Your task to perform on an android device: Open battery settings Image 0: 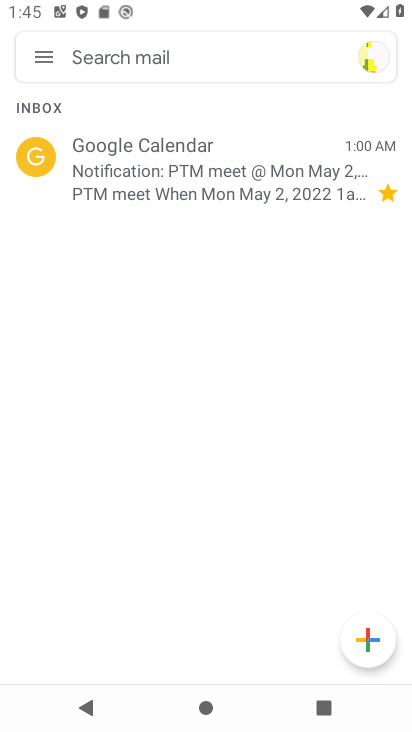
Step 0: press home button
Your task to perform on an android device: Open battery settings Image 1: 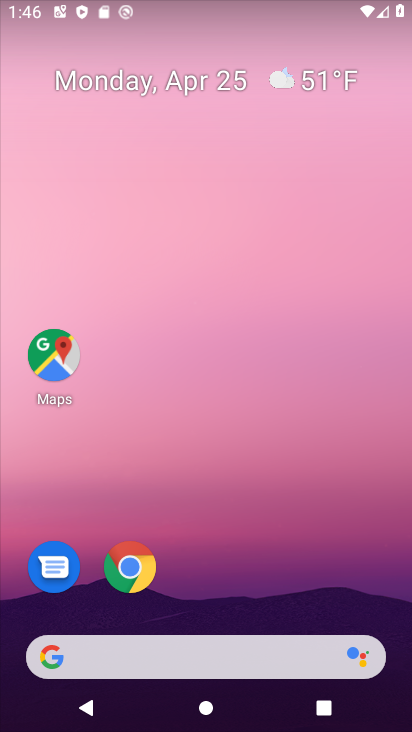
Step 1: drag from (279, 546) to (202, 187)
Your task to perform on an android device: Open battery settings Image 2: 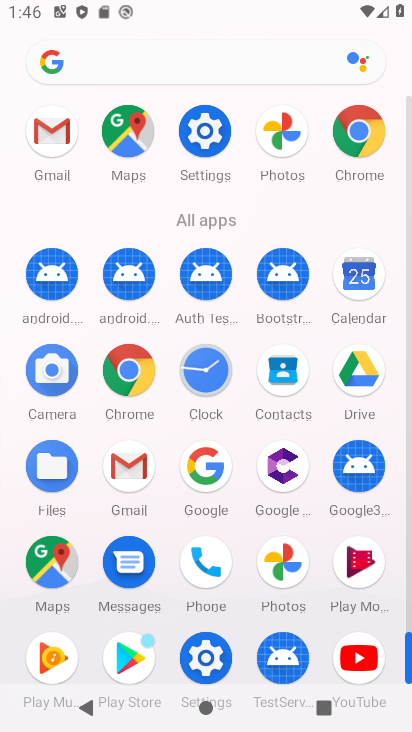
Step 2: click (213, 169)
Your task to perform on an android device: Open battery settings Image 3: 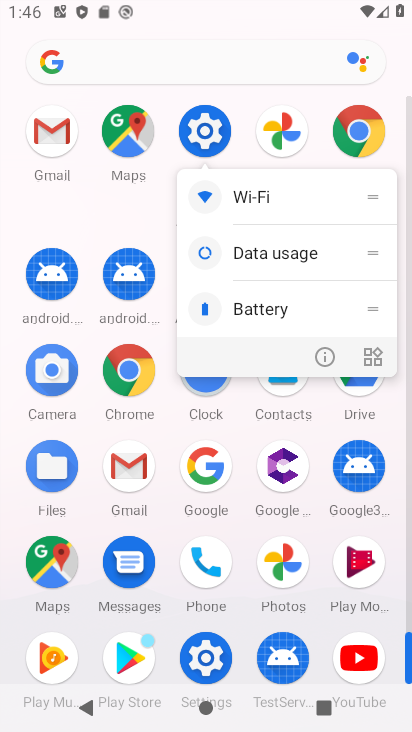
Step 3: click (215, 152)
Your task to perform on an android device: Open battery settings Image 4: 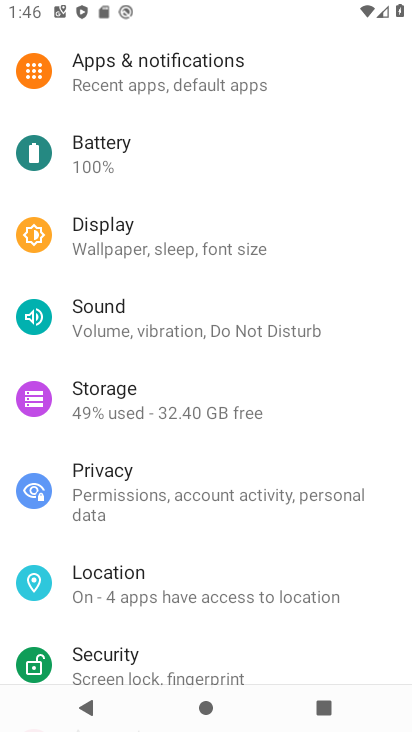
Step 4: click (138, 152)
Your task to perform on an android device: Open battery settings Image 5: 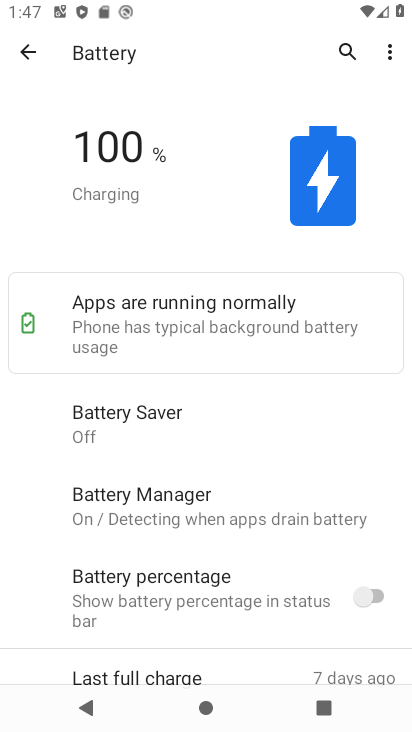
Step 5: task complete